Your task to perform on an android device: open app "Viber Messenger" (install if not already installed) Image 0: 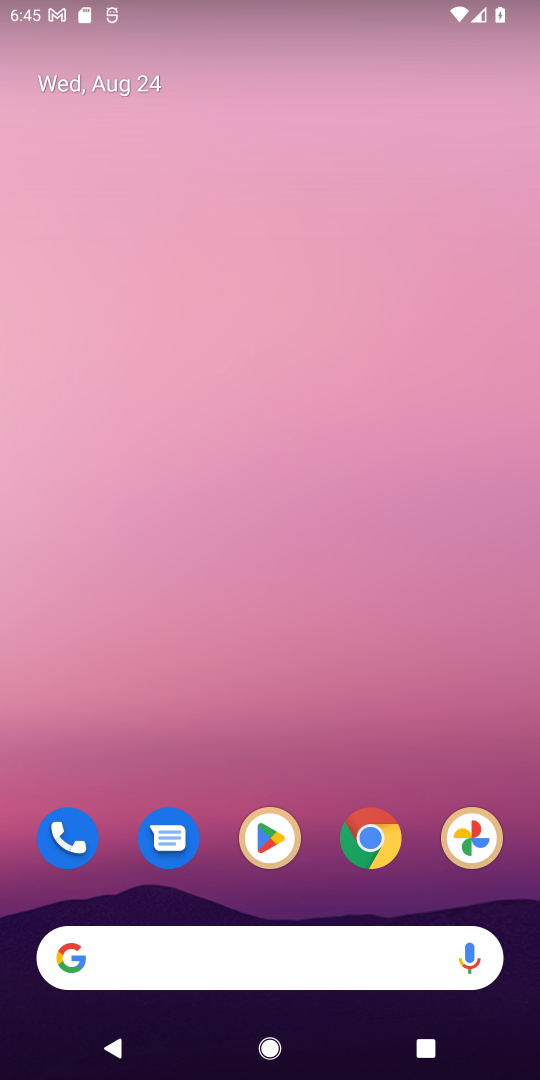
Step 0: click (270, 838)
Your task to perform on an android device: open app "Viber Messenger" (install if not already installed) Image 1: 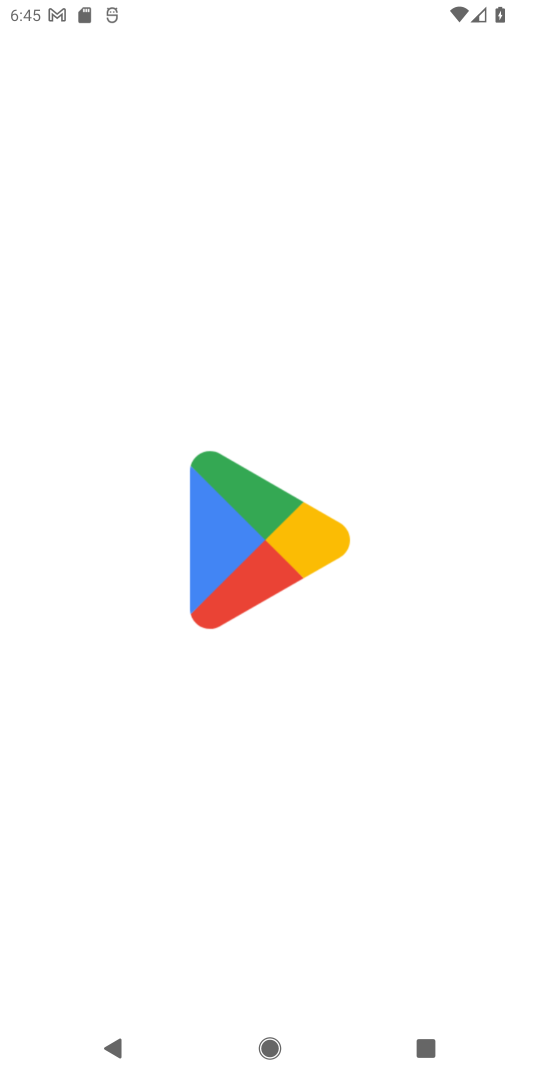
Step 1: task complete